Your task to perform on an android device: turn on improve location accuracy Image 0: 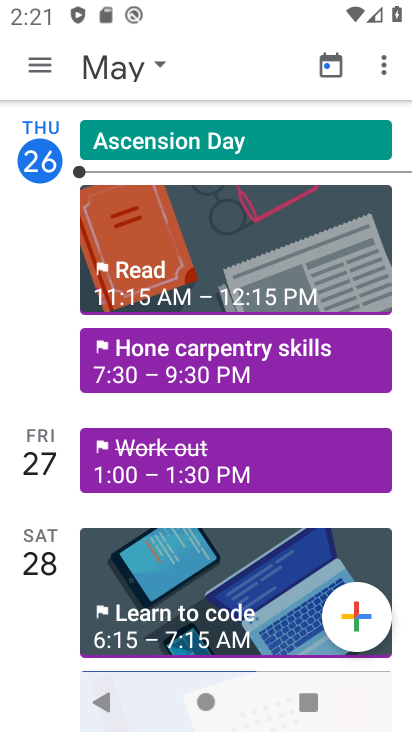
Step 0: press home button
Your task to perform on an android device: turn on improve location accuracy Image 1: 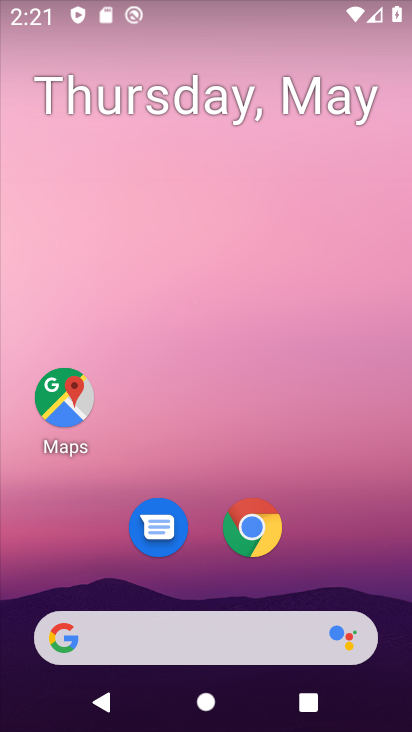
Step 1: drag from (381, 542) to (239, 101)
Your task to perform on an android device: turn on improve location accuracy Image 2: 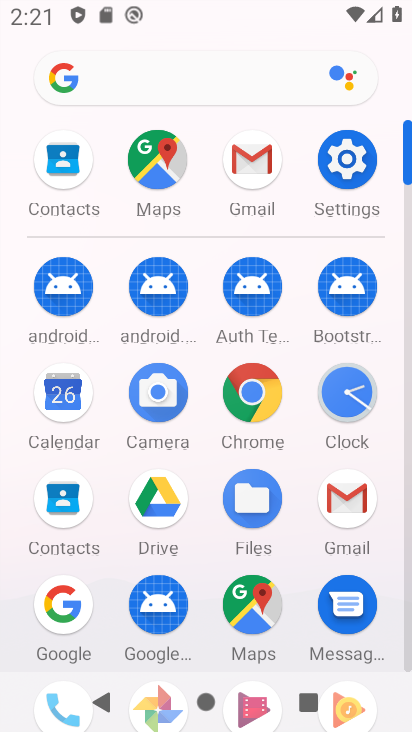
Step 2: click (345, 177)
Your task to perform on an android device: turn on improve location accuracy Image 3: 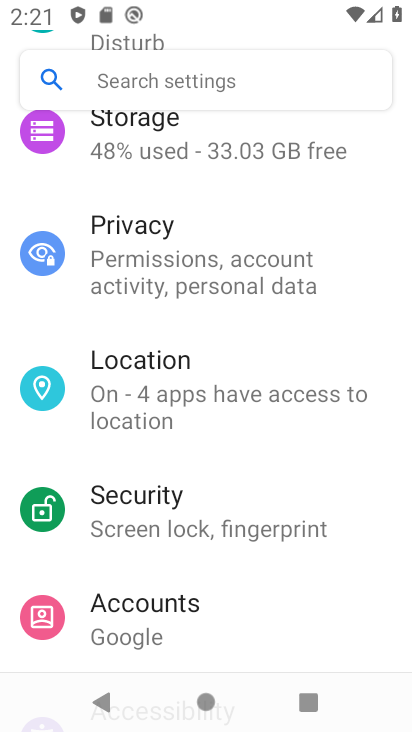
Step 3: click (183, 379)
Your task to perform on an android device: turn on improve location accuracy Image 4: 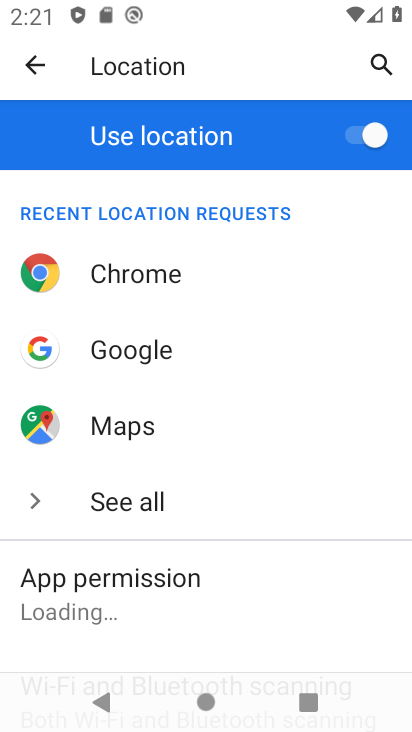
Step 4: drag from (221, 565) to (168, 123)
Your task to perform on an android device: turn on improve location accuracy Image 5: 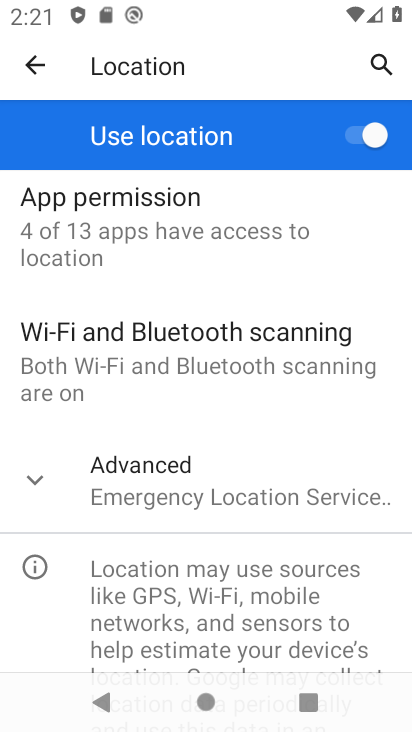
Step 5: click (199, 483)
Your task to perform on an android device: turn on improve location accuracy Image 6: 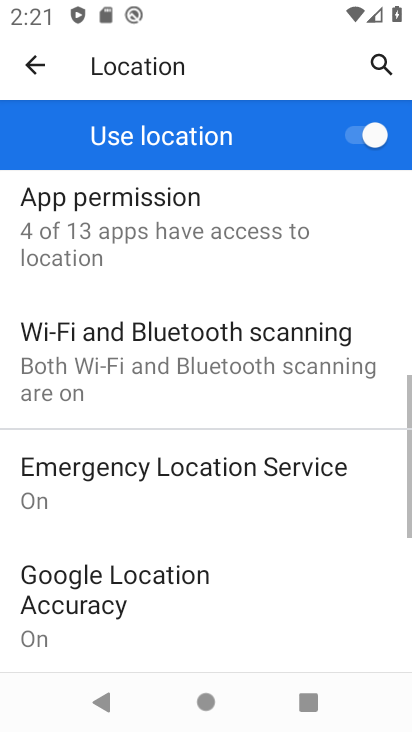
Step 6: drag from (319, 612) to (289, 381)
Your task to perform on an android device: turn on improve location accuracy Image 7: 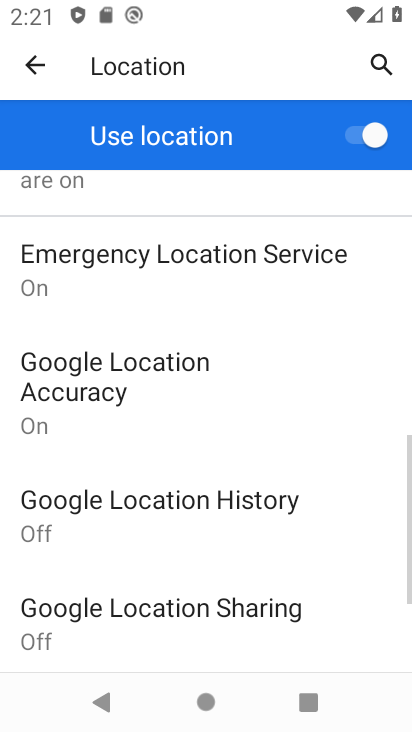
Step 7: click (129, 406)
Your task to perform on an android device: turn on improve location accuracy Image 8: 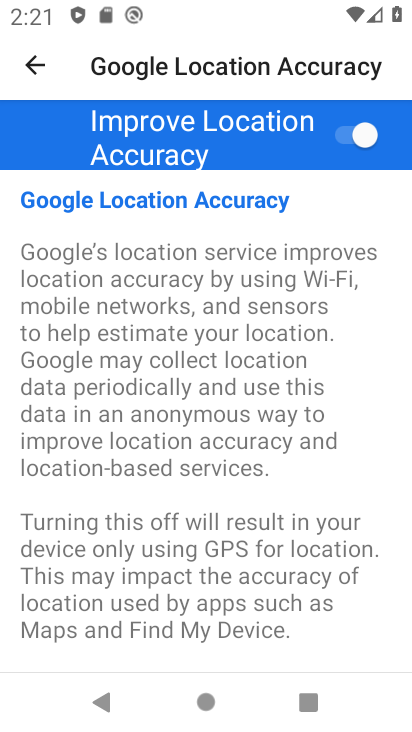
Step 8: task complete